Your task to perform on an android device: stop showing notifications on the lock screen Image 0: 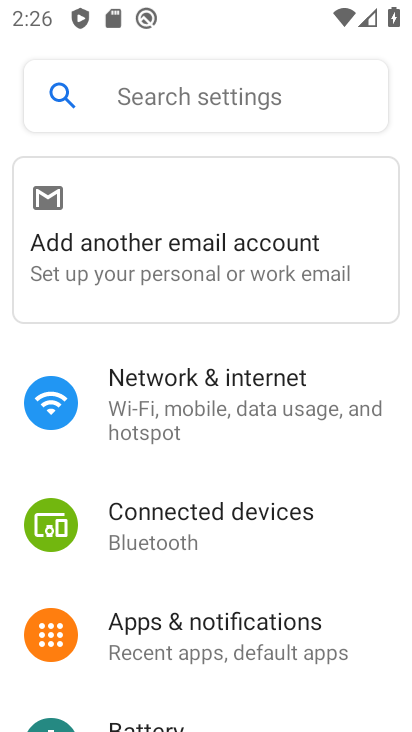
Step 0: click (190, 638)
Your task to perform on an android device: stop showing notifications on the lock screen Image 1: 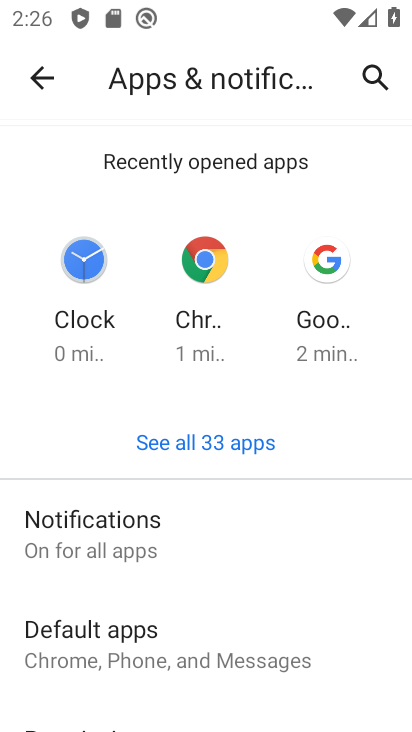
Step 1: click (117, 551)
Your task to perform on an android device: stop showing notifications on the lock screen Image 2: 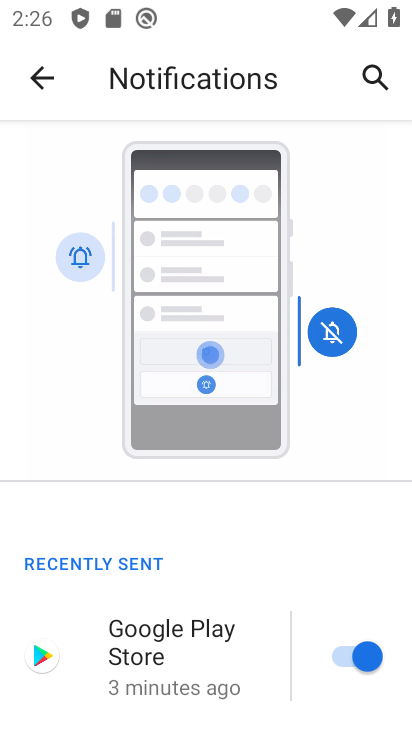
Step 2: drag from (207, 583) to (273, 241)
Your task to perform on an android device: stop showing notifications on the lock screen Image 3: 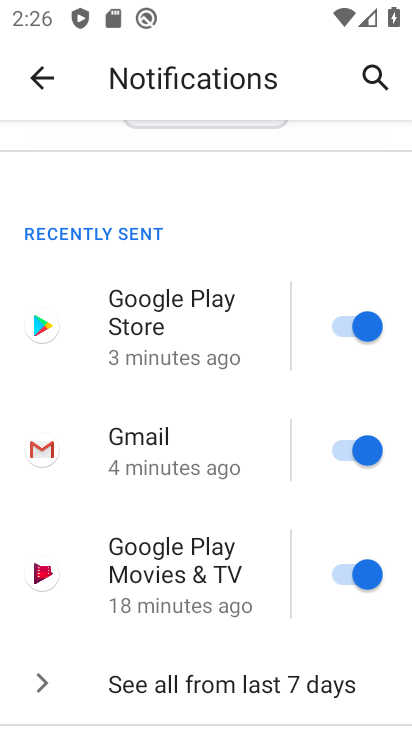
Step 3: drag from (201, 619) to (260, 148)
Your task to perform on an android device: stop showing notifications on the lock screen Image 4: 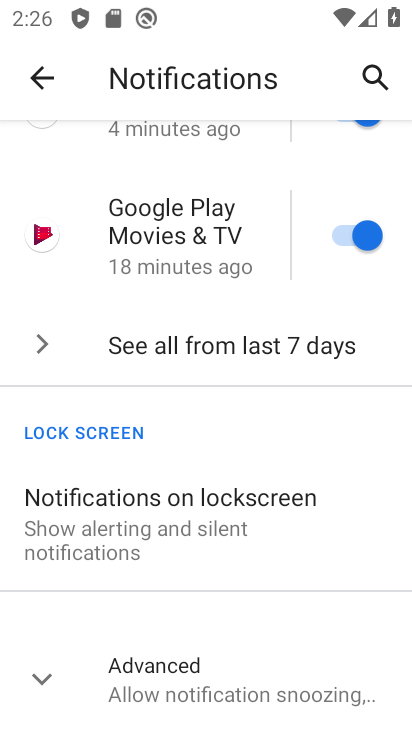
Step 4: click (138, 540)
Your task to perform on an android device: stop showing notifications on the lock screen Image 5: 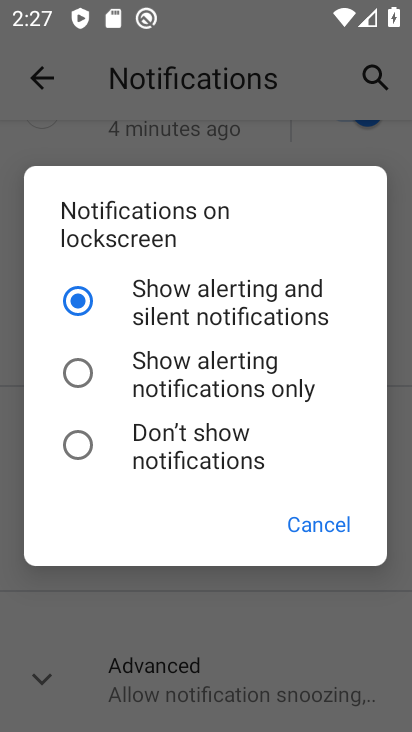
Step 5: click (68, 452)
Your task to perform on an android device: stop showing notifications on the lock screen Image 6: 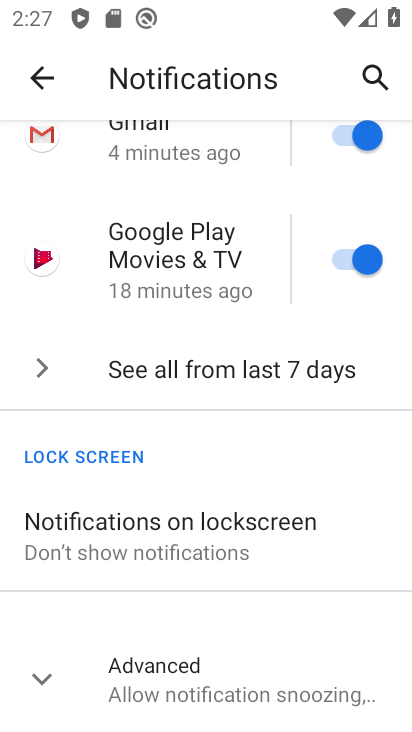
Step 6: task complete